Your task to perform on an android device: Clear the shopping cart on ebay.com. Search for "usb-a" on ebay.com, select the first entry, and add it to the cart. Image 0: 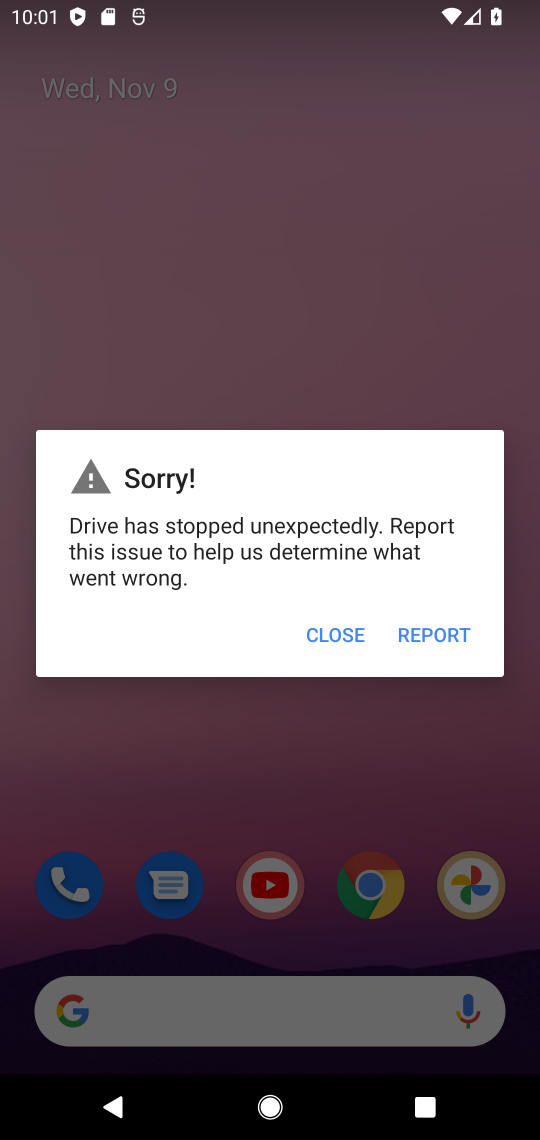
Step 0: click (333, 634)
Your task to perform on an android device: Clear the shopping cart on ebay.com. Search for "usb-a" on ebay.com, select the first entry, and add it to the cart. Image 1: 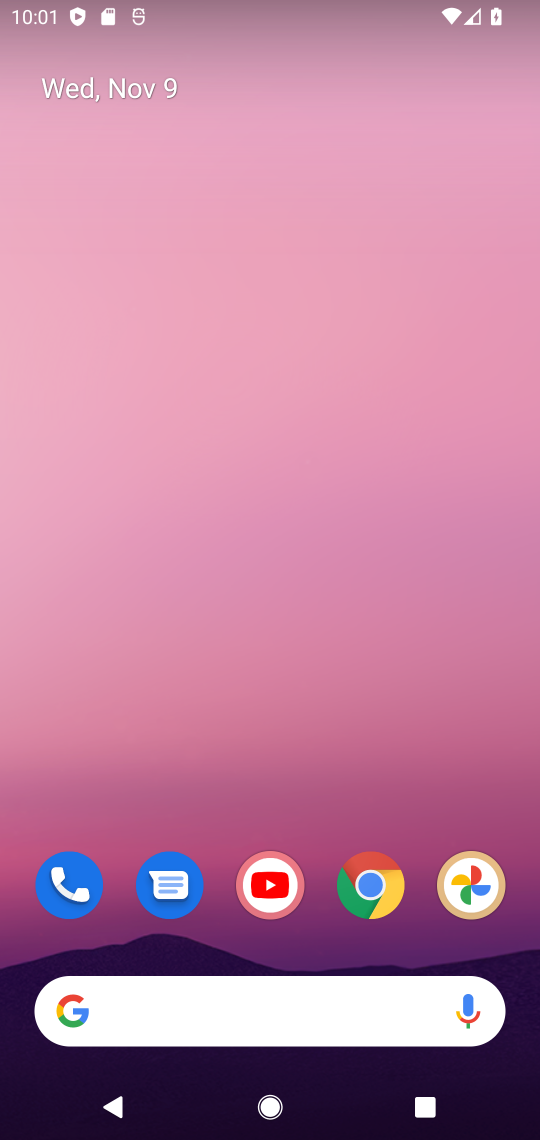
Step 1: click (370, 886)
Your task to perform on an android device: Clear the shopping cart on ebay.com. Search for "usb-a" on ebay.com, select the first entry, and add it to the cart. Image 2: 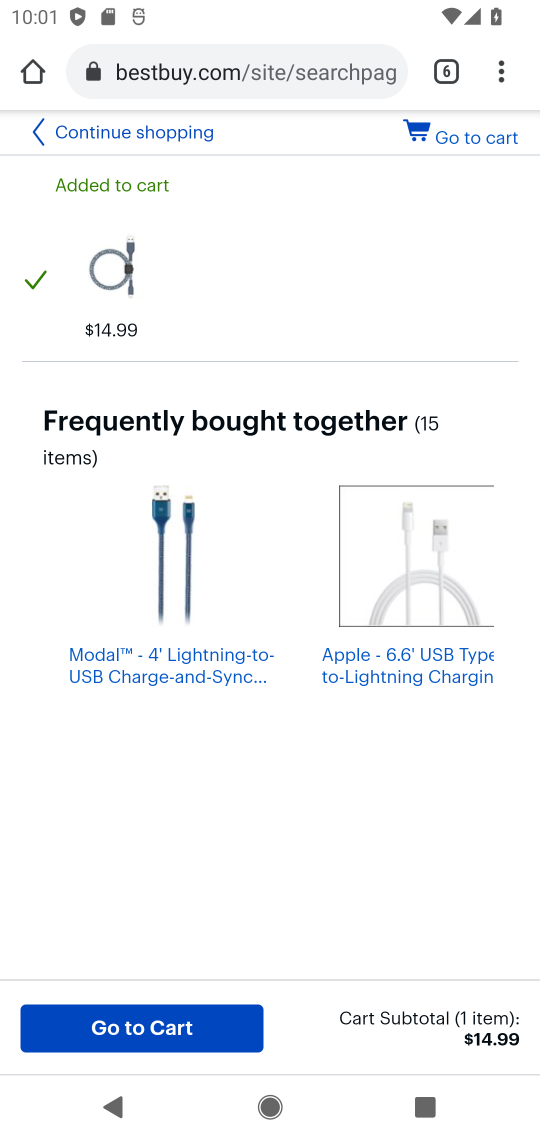
Step 2: click (447, 62)
Your task to perform on an android device: Clear the shopping cart on ebay.com. Search for "usb-a" on ebay.com, select the first entry, and add it to the cart. Image 3: 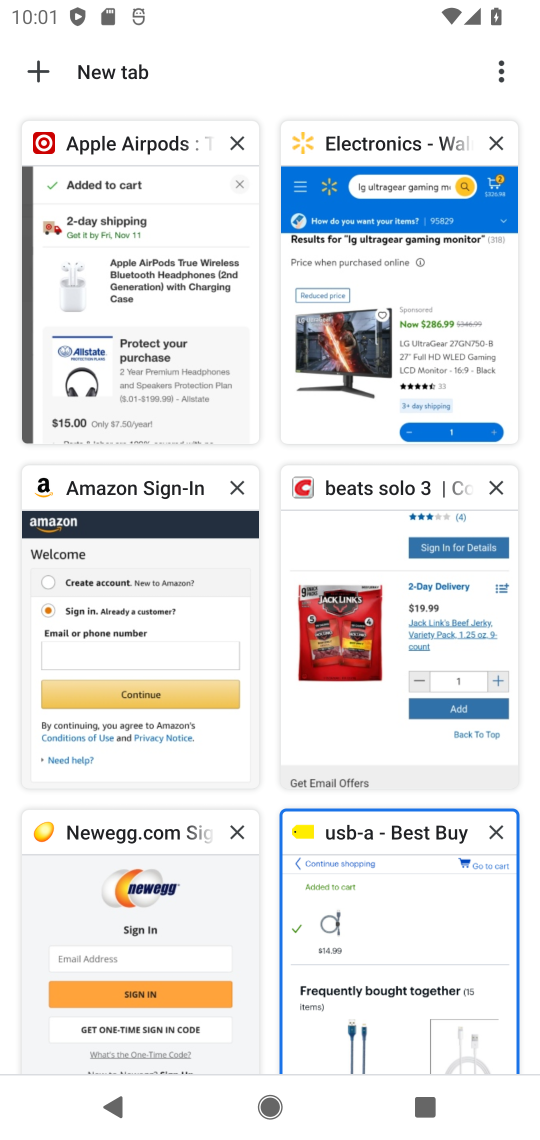
Step 3: click (40, 71)
Your task to perform on an android device: Clear the shopping cart on ebay.com. Search for "usb-a" on ebay.com, select the first entry, and add it to the cart. Image 4: 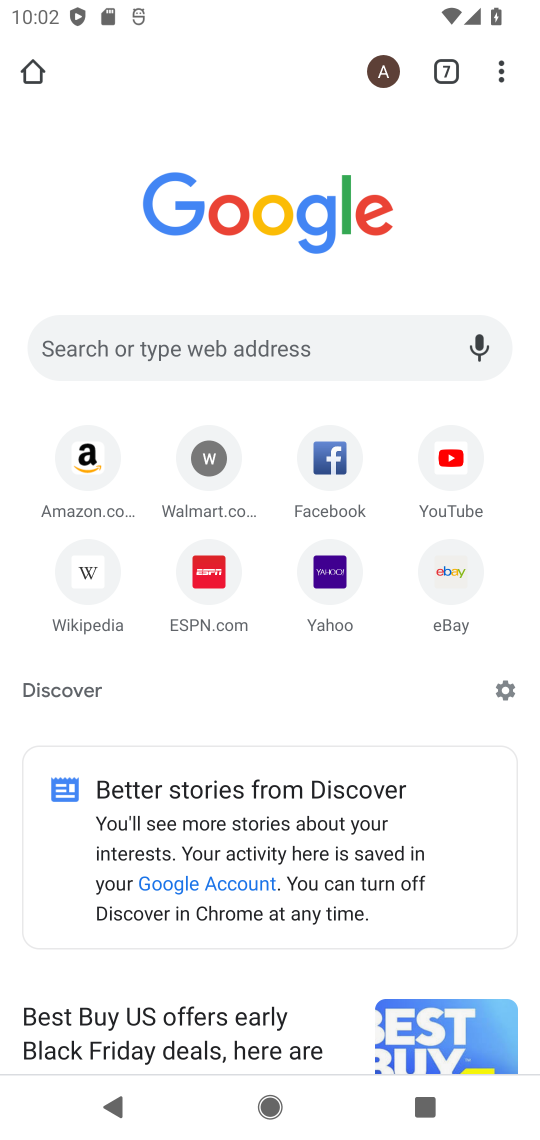
Step 4: click (448, 569)
Your task to perform on an android device: Clear the shopping cart on ebay.com. Search for "usb-a" on ebay.com, select the first entry, and add it to the cart. Image 5: 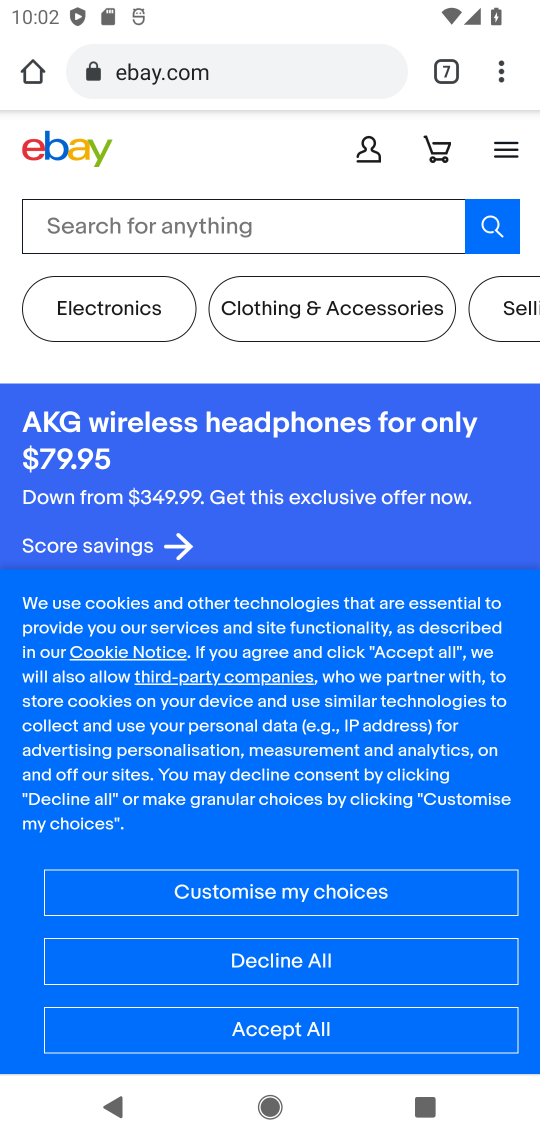
Step 5: click (300, 960)
Your task to perform on an android device: Clear the shopping cart on ebay.com. Search for "usb-a" on ebay.com, select the first entry, and add it to the cart. Image 6: 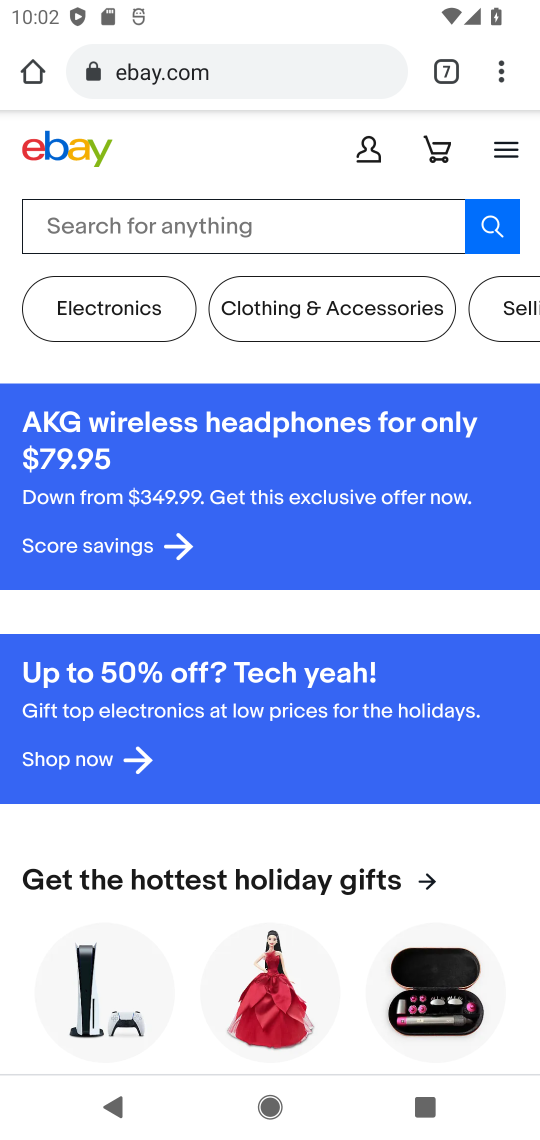
Step 6: click (86, 230)
Your task to perform on an android device: Clear the shopping cart on ebay.com. Search for "usb-a" on ebay.com, select the first entry, and add it to the cart. Image 7: 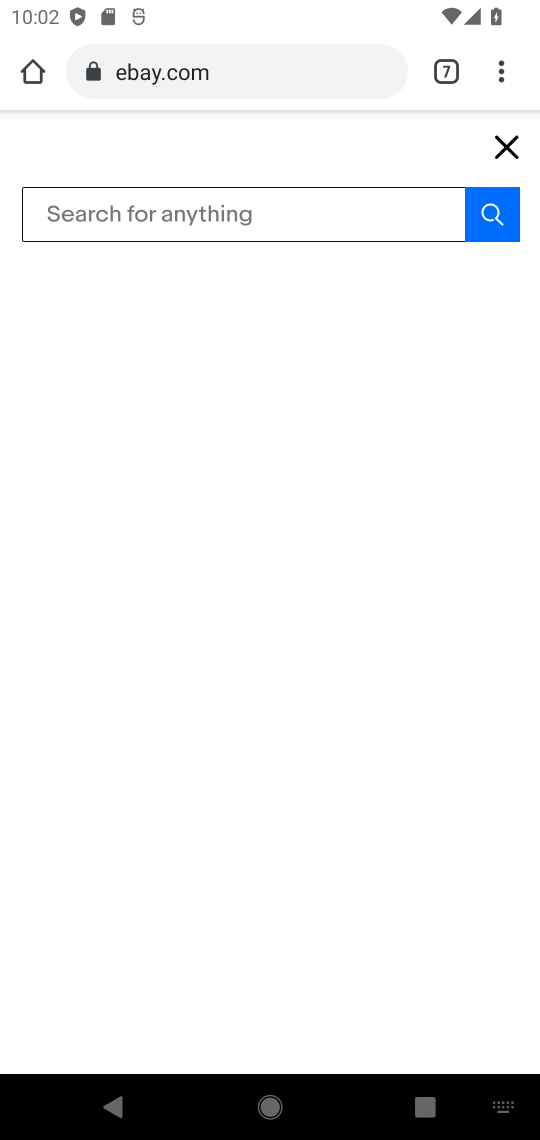
Step 7: type "usb-a"
Your task to perform on an android device: Clear the shopping cart on ebay.com. Search for "usb-a" on ebay.com, select the first entry, and add it to the cart. Image 8: 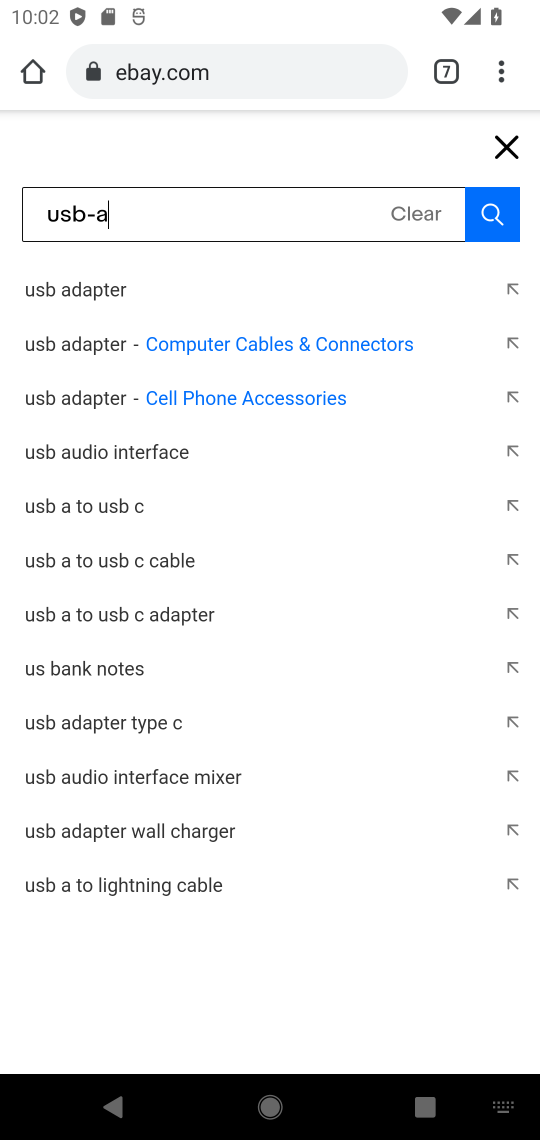
Step 8: click (79, 348)
Your task to perform on an android device: Clear the shopping cart on ebay.com. Search for "usb-a" on ebay.com, select the first entry, and add it to the cart. Image 9: 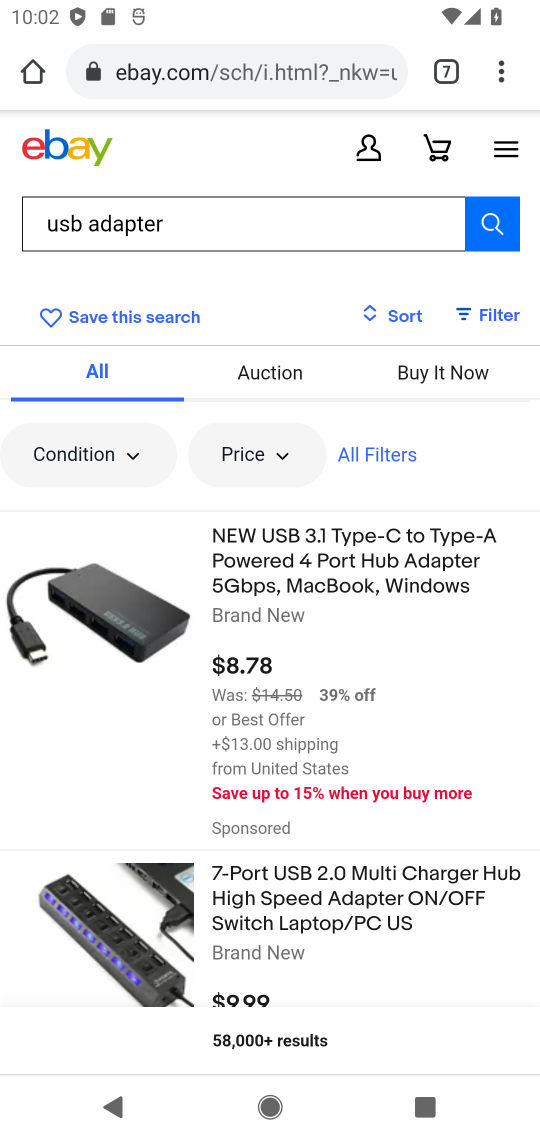
Step 9: drag from (459, 939) to (520, 598)
Your task to perform on an android device: Clear the shopping cart on ebay.com. Search for "usb-a" on ebay.com, select the first entry, and add it to the cart. Image 10: 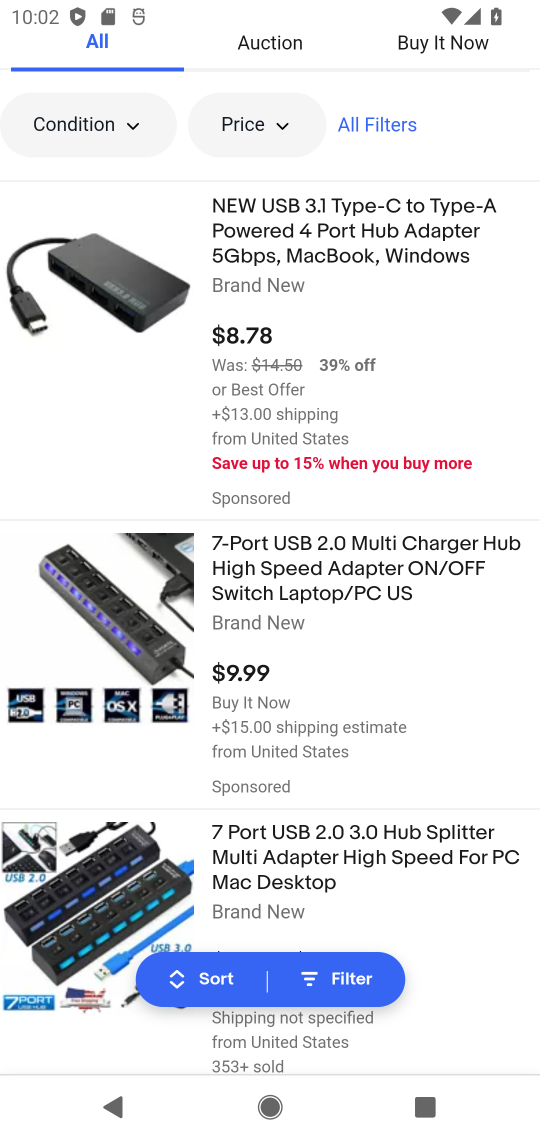
Step 10: drag from (447, 619) to (497, 465)
Your task to perform on an android device: Clear the shopping cart on ebay.com. Search for "usb-a" on ebay.com, select the first entry, and add it to the cart. Image 11: 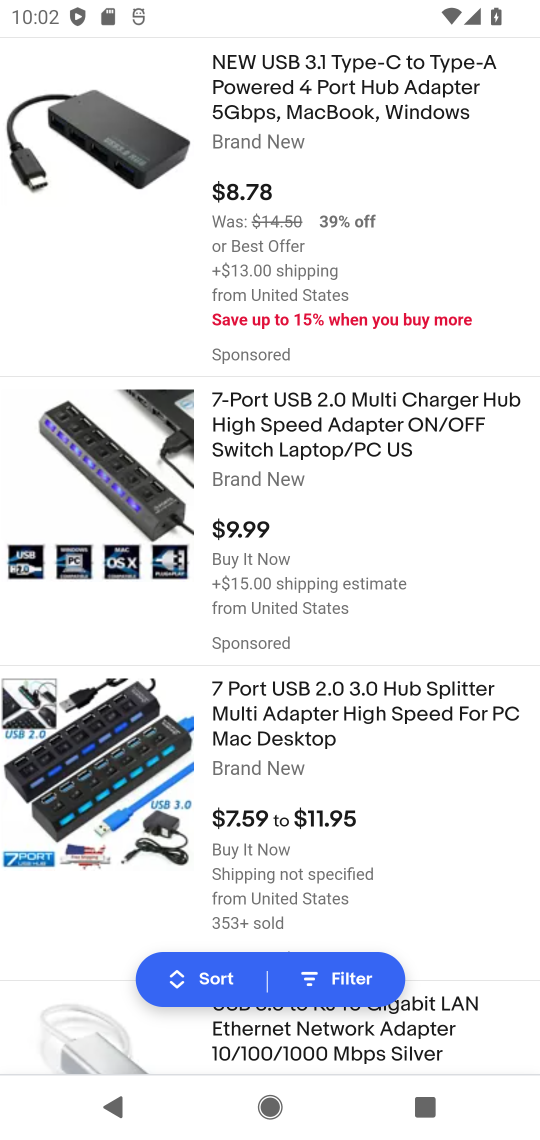
Step 11: drag from (424, 800) to (391, 149)
Your task to perform on an android device: Clear the shopping cart on ebay.com. Search for "usb-a" on ebay.com, select the first entry, and add it to the cart. Image 12: 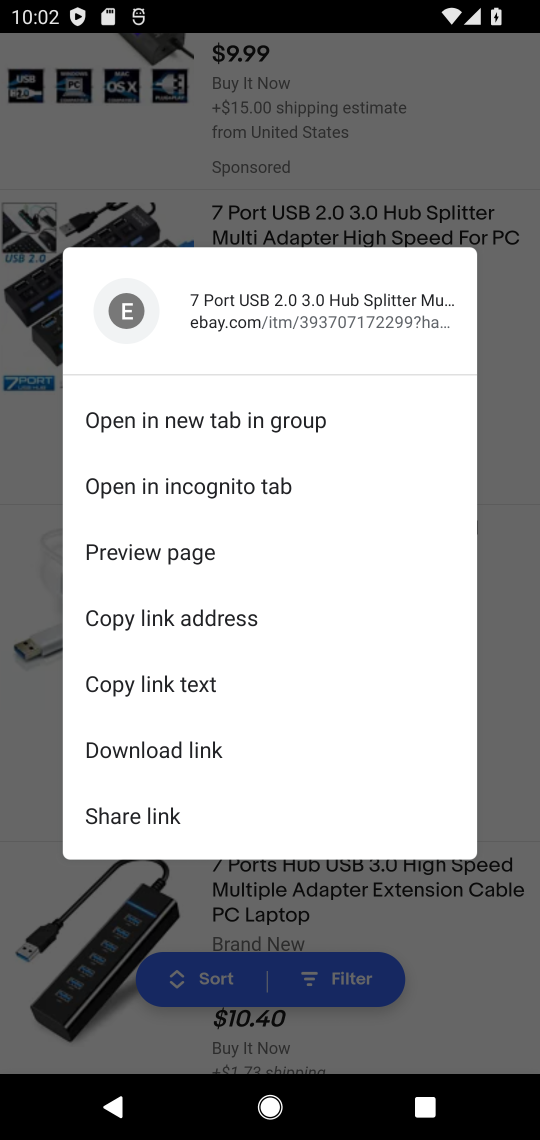
Step 12: click (425, 139)
Your task to perform on an android device: Clear the shopping cart on ebay.com. Search for "usb-a" on ebay.com, select the first entry, and add it to the cart. Image 13: 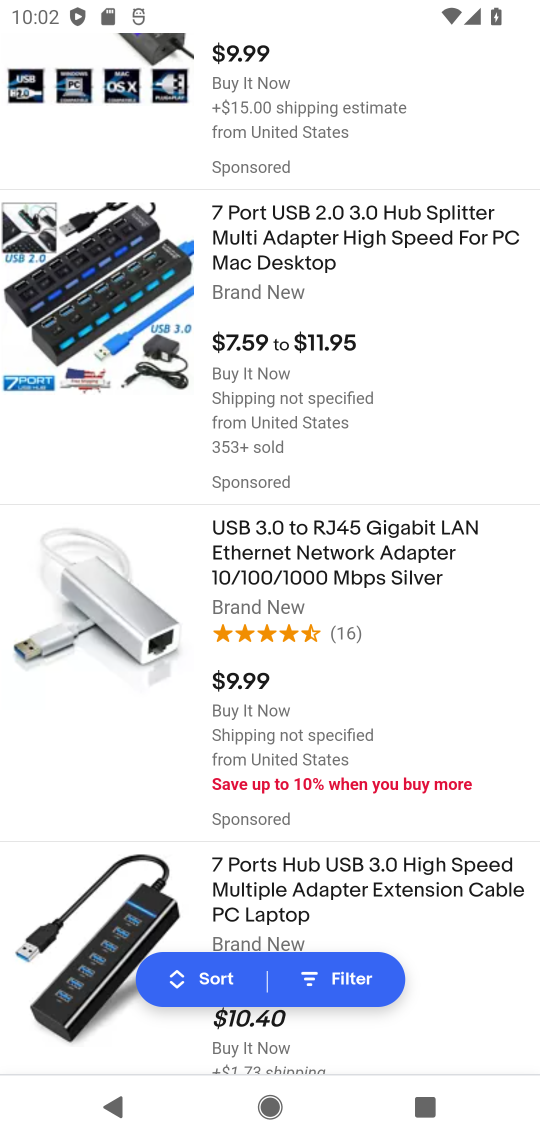
Step 13: drag from (425, 139) to (312, 640)
Your task to perform on an android device: Clear the shopping cart on ebay.com. Search for "usb-a" on ebay.com, select the first entry, and add it to the cart. Image 14: 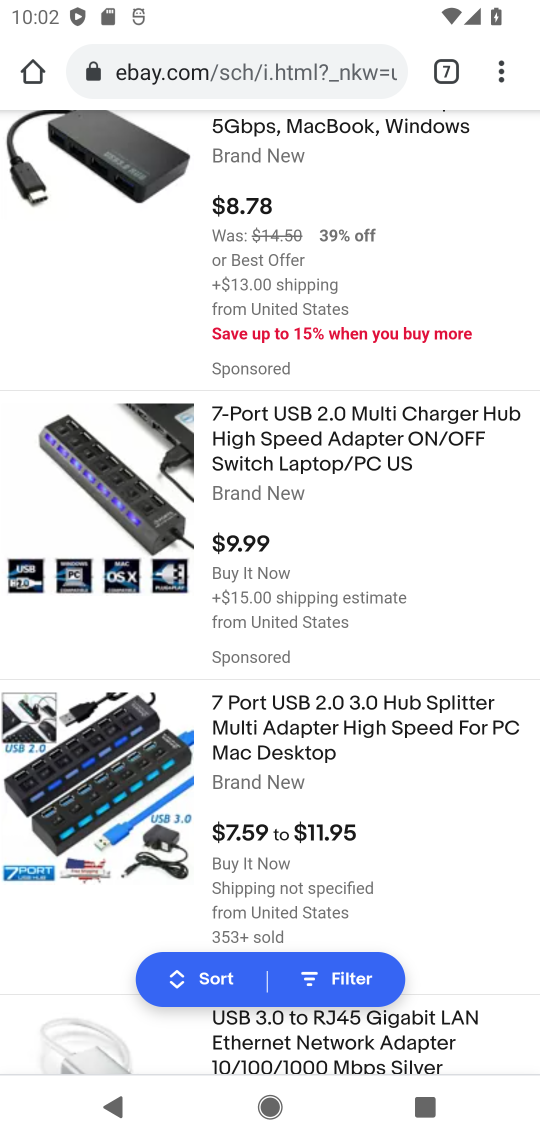
Step 14: drag from (371, 197) to (300, 582)
Your task to perform on an android device: Clear the shopping cart on ebay.com. Search for "usb-a" on ebay.com, select the first entry, and add it to the cart. Image 15: 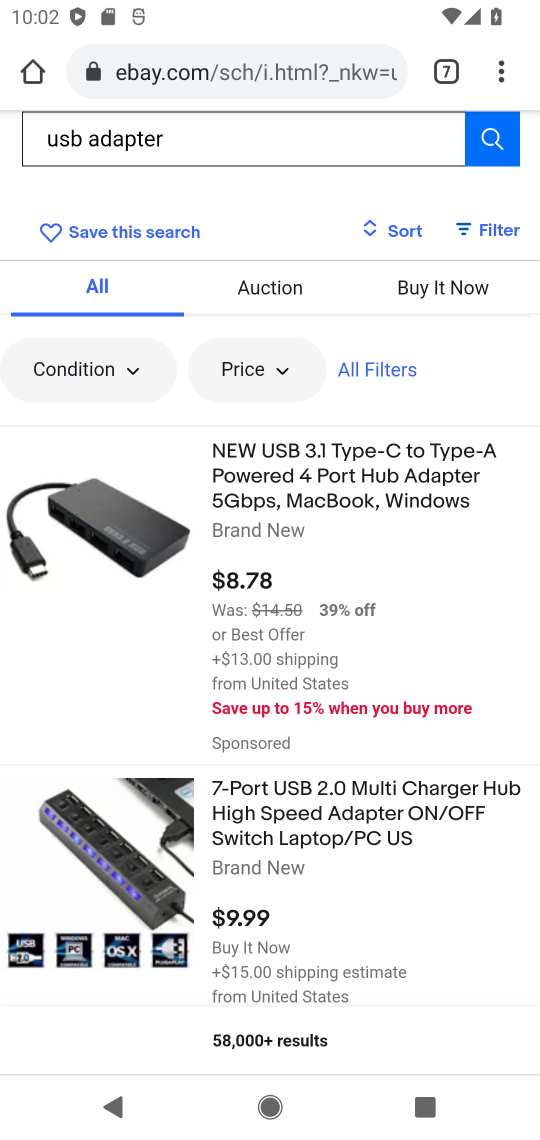
Step 15: click (321, 463)
Your task to perform on an android device: Clear the shopping cart on ebay.com. Search for "usb-a" on ebay.com, select the first entry, and add it to the cart. Image 16: 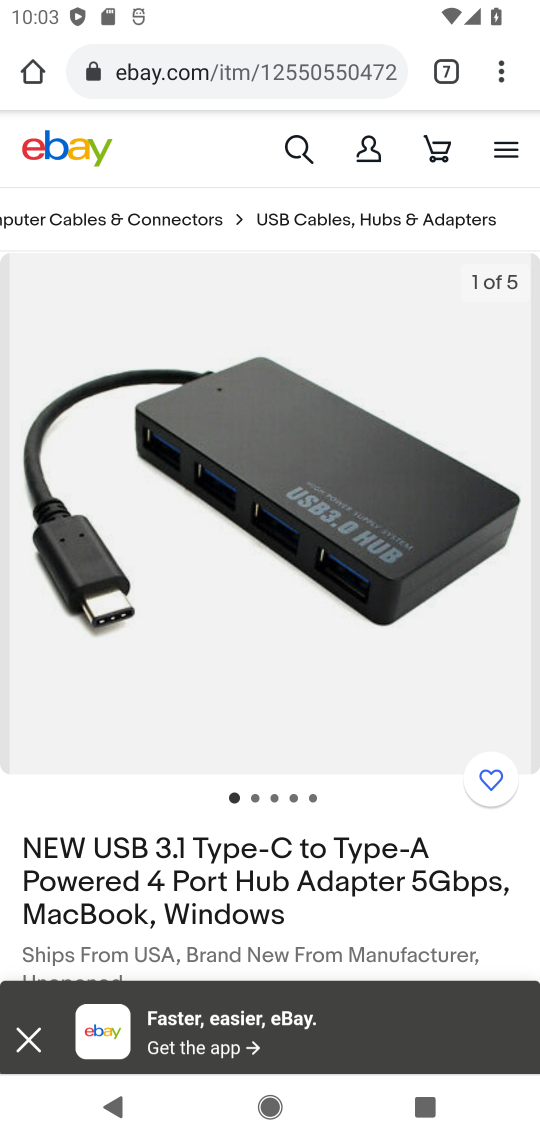
Step 16: drag from (352, 953) to (388, 547)
Your task to perform on an android device: Clear the shopping cart on ebay.com. Search for "usb-a" on ebay.com, select the first entry, and add it to the cart. Image 17: 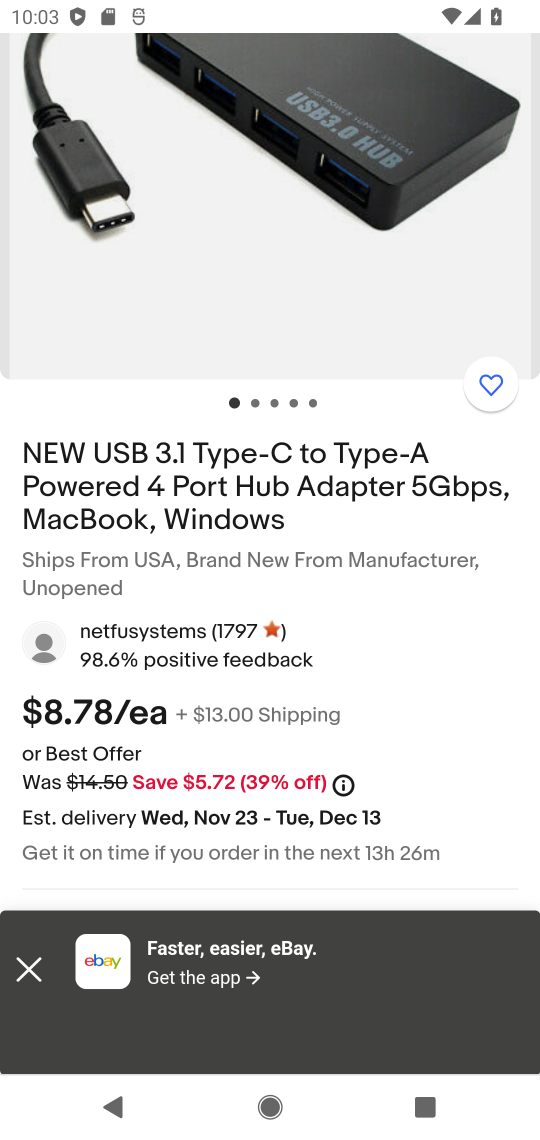
Step 17: drag from (233, 774) to (271, 461)
Your task to perform on an android device: Clear the shopping cart on ebay.com. Search for "usb-a" on ebay.com, select the first entry, and add it to the cart. Image 18: 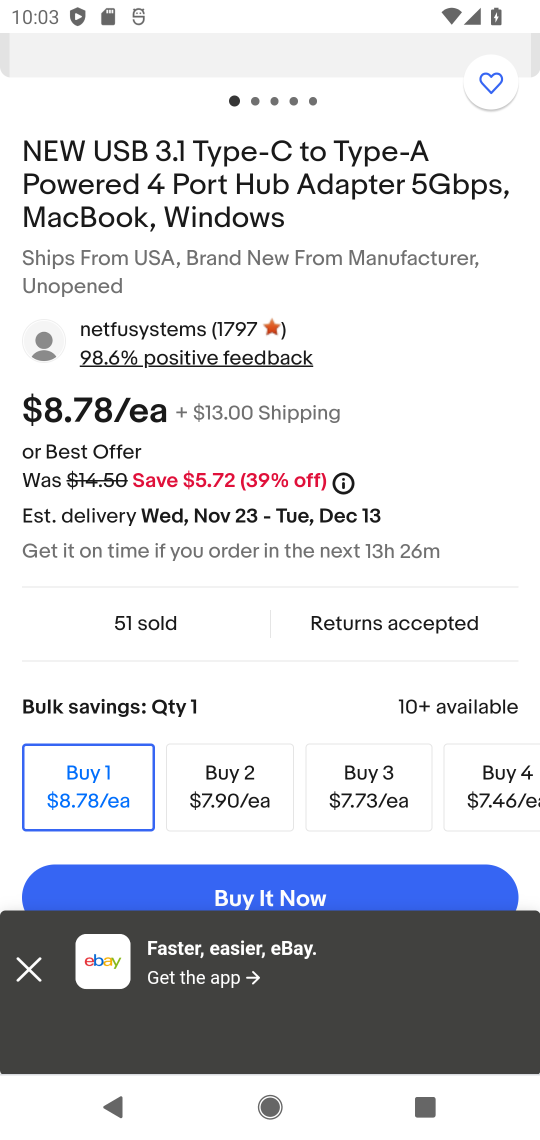
Step 18: drag from (319, 674) to (468, 1)
Your task to perform on an android device: Clear the shopping cart on ebay.com. Search for "usb-a" on ebay.com, select the first entry, and add it to the cart. Image 19: 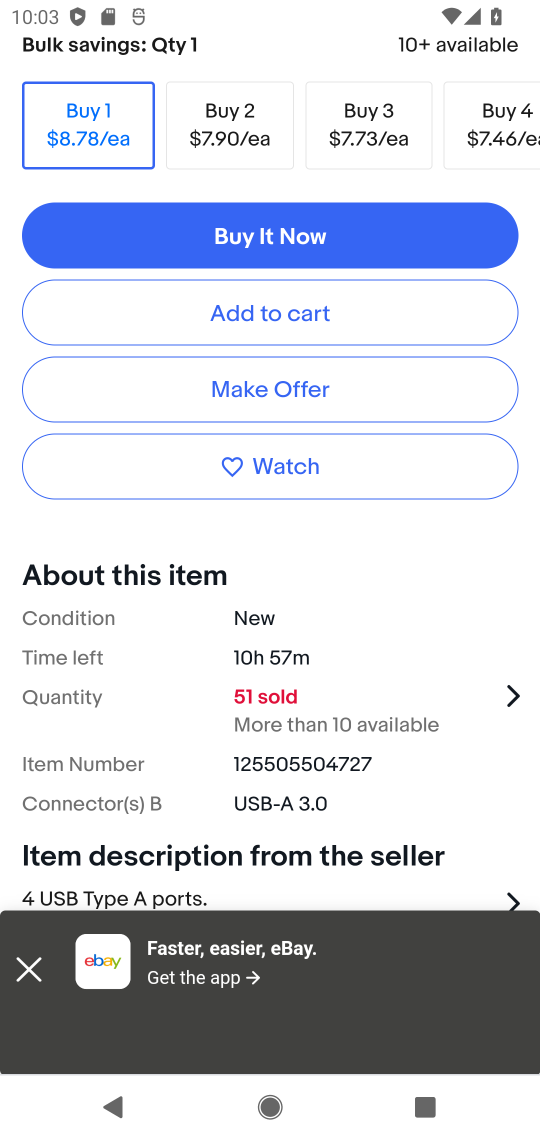
Step 19: click (297, 326)
Your task to perform on an android device: Clear the shopping cart on ebay.com. Search for "usb-a" on ebay.com, select the first entry, and add it to the cart. Image 20: 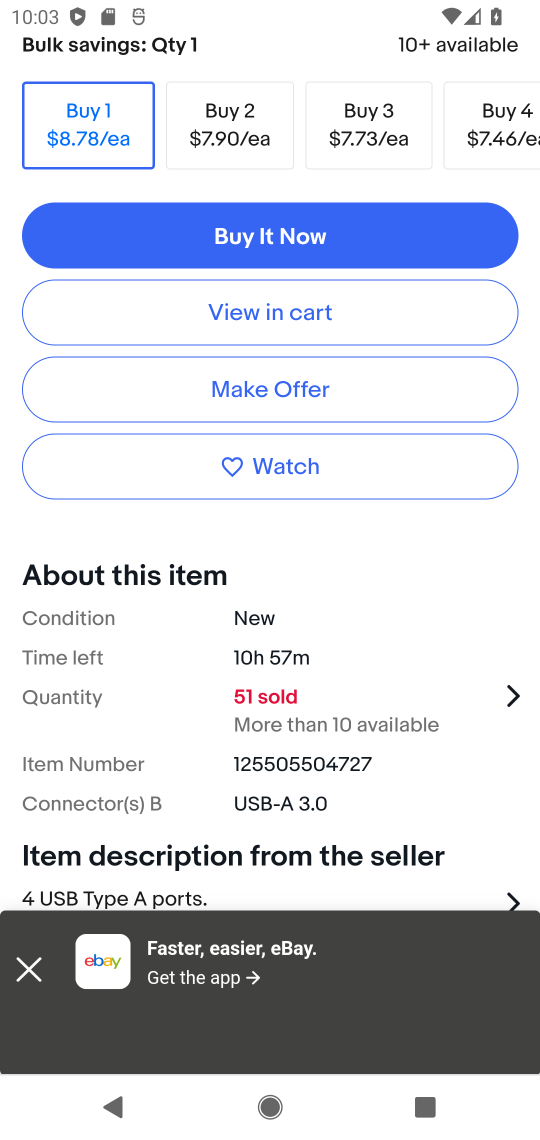
Step 20: task complete